Your task to perform on an android device: Show me the alarms in the clock app Image 0: 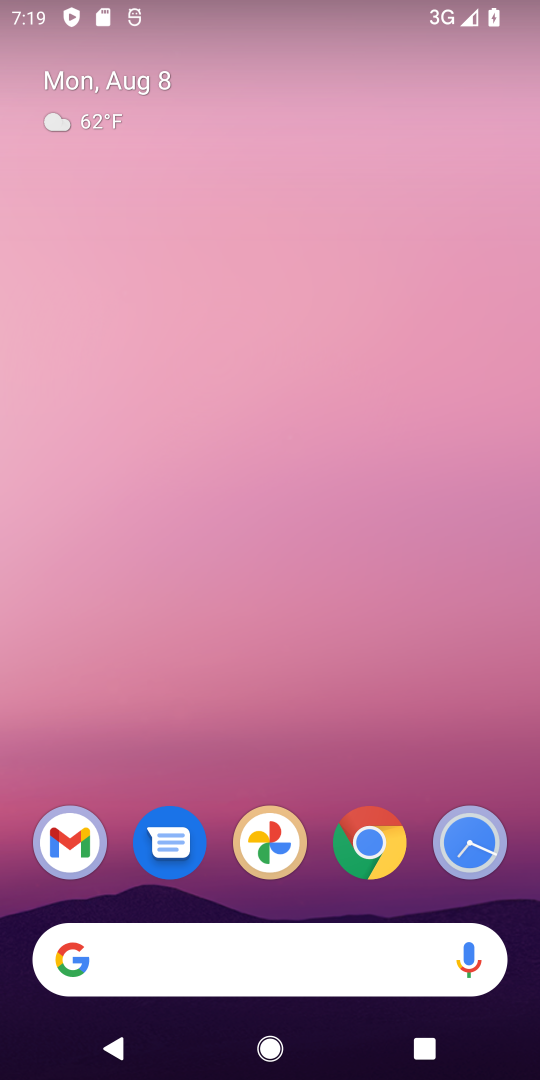
Step 0: drag from (306, 881) to (217, 54)
Your task to perform on an android device: Show me the alarms in the clock app Image 1: 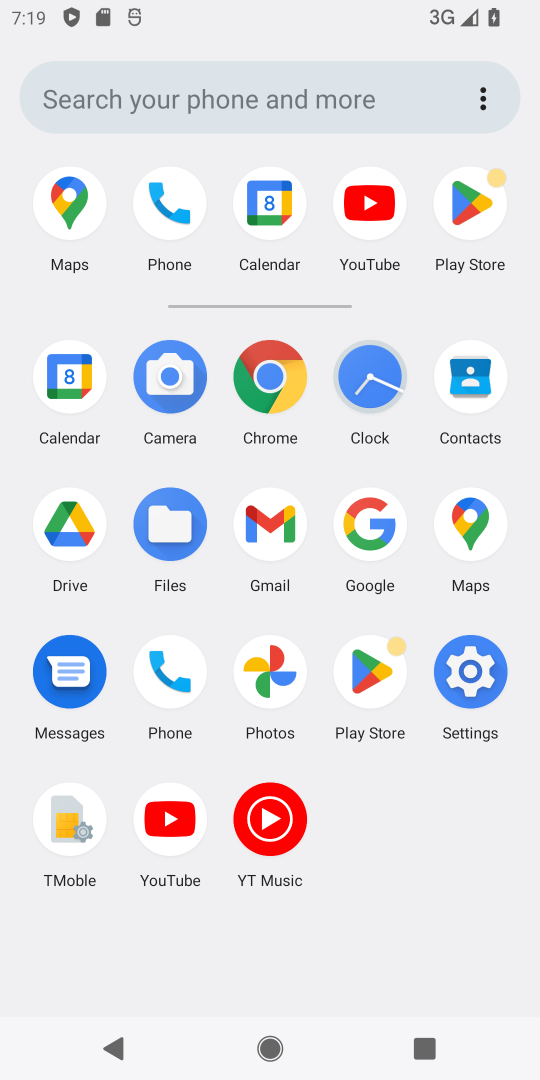
Step 1: click (362, 375)
Your task to perform on an android device: Show me the alarms in the clock app Image 2: 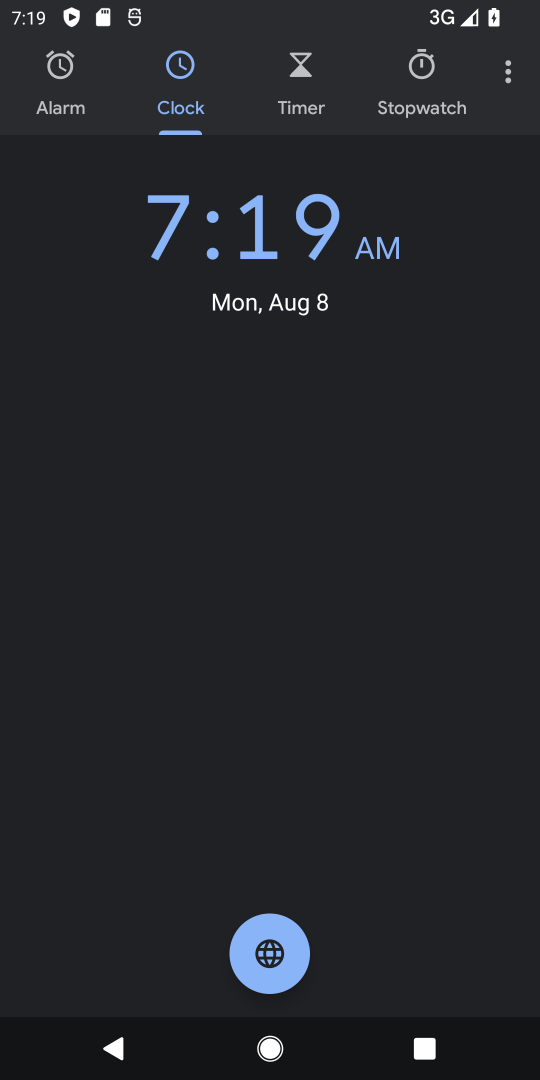
Step 2: drag from (499, 82) to (405, 621)
Your task to perform on an android device: Show me the alarms in the clock app Image 3: 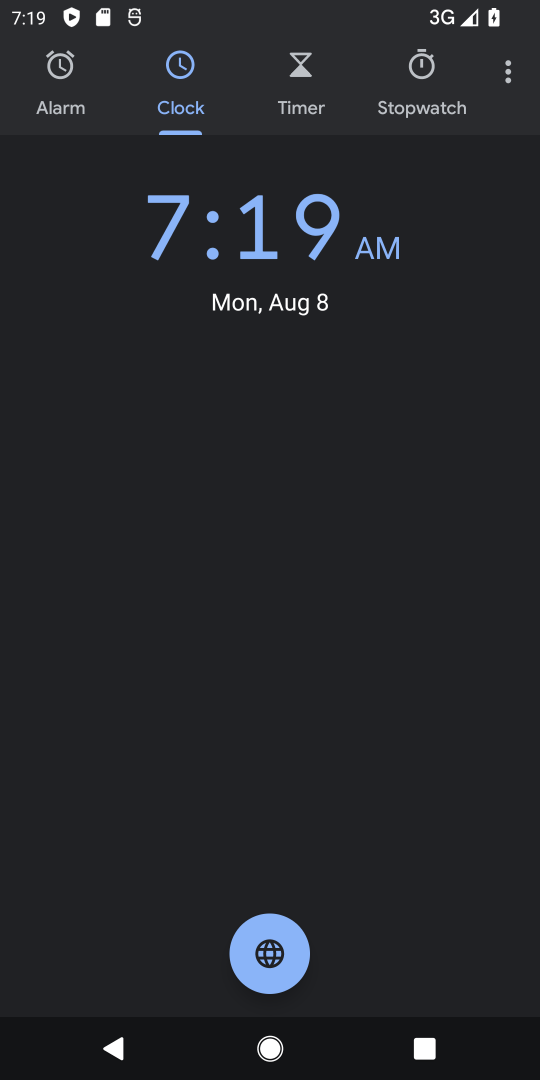
Step 3: click (67, 82)
Your task to perform on an android device: Show me the alarms in the clock app Image 4: 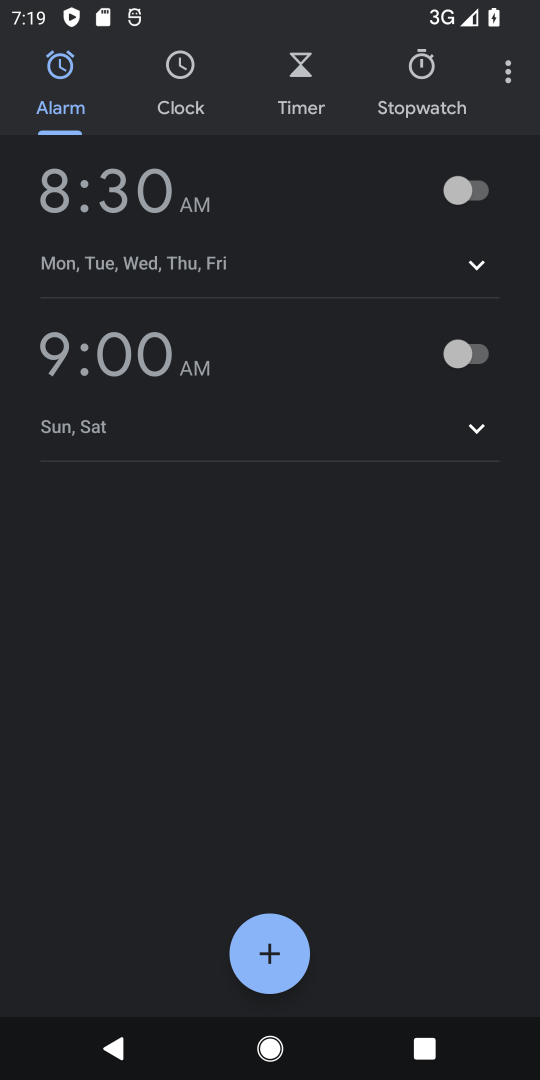
Step 4: task complete